Your task to perform on an android device: Open maps Image 0: 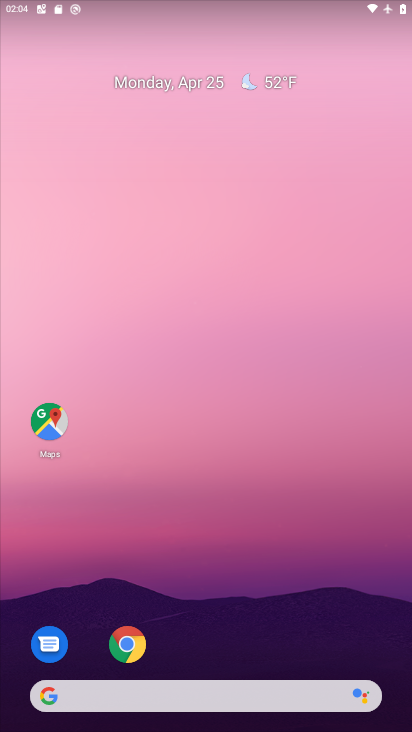
Step 0: drag from (213, 674) to (230, 273)
Your task to perform on an android device: Open maps Image 1: 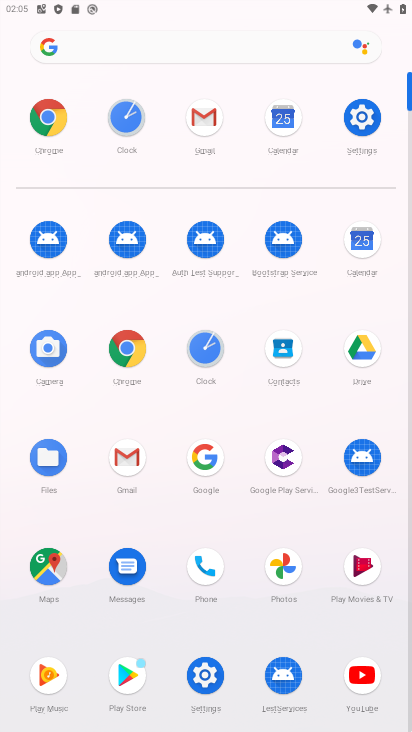
Step 1: click (131, 373)
Your task to perform on an android device: Open maps Image 2: 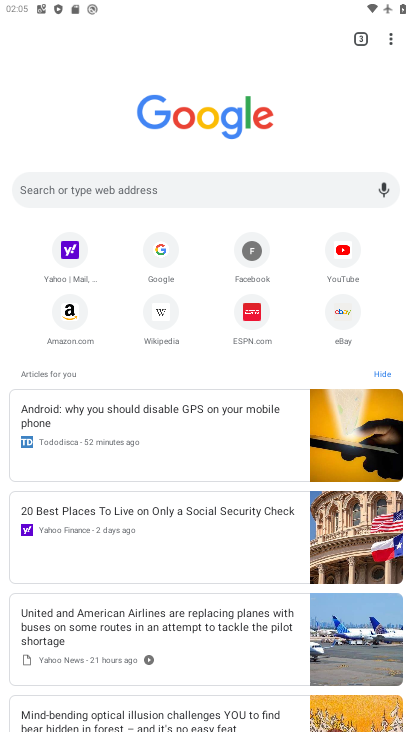
Step 2: press home button
Your task to perform on an android device: Open maps Image 3: 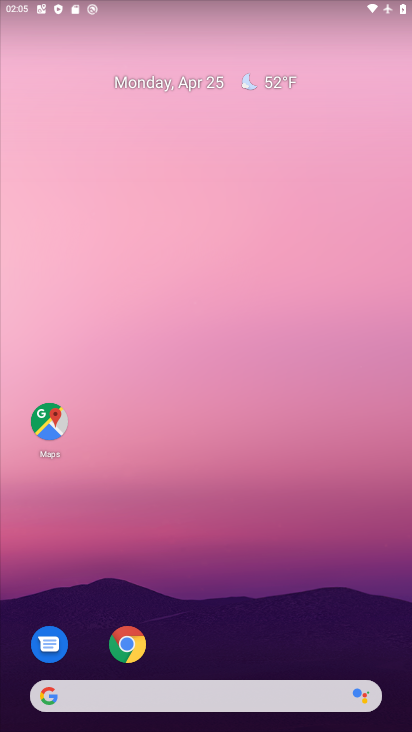
Step 3: drag from (254, 633) to (255, 39)
Your task to perform on an android device: Open maps Image 4: 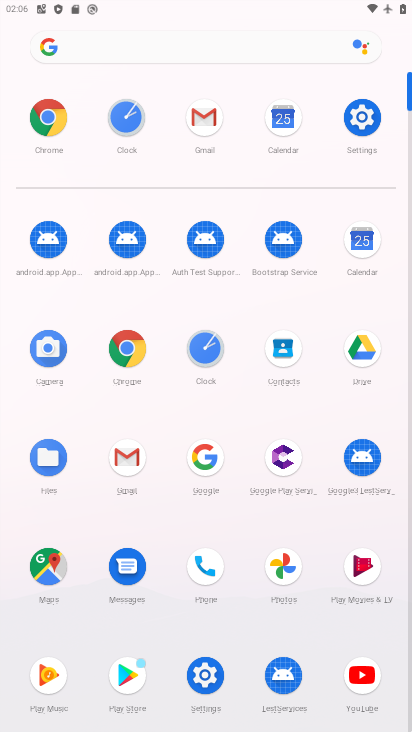
Step 4: click (50, 587)
Your task to perform on an android device: Open maps Image 5: 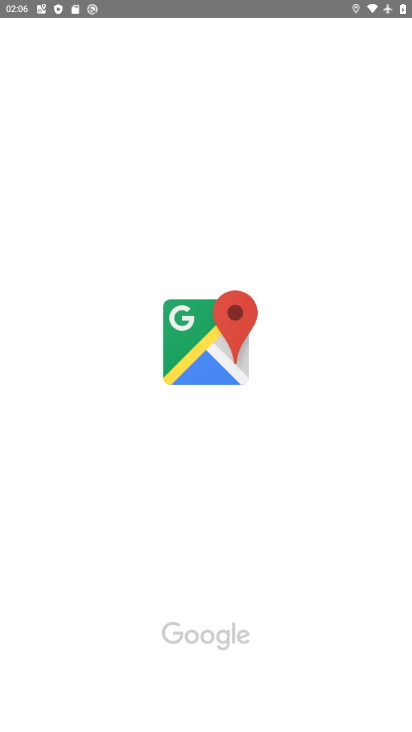
Step 5: task complete